Your task to perform on an android device: Set an alarm for 6am Image 0: 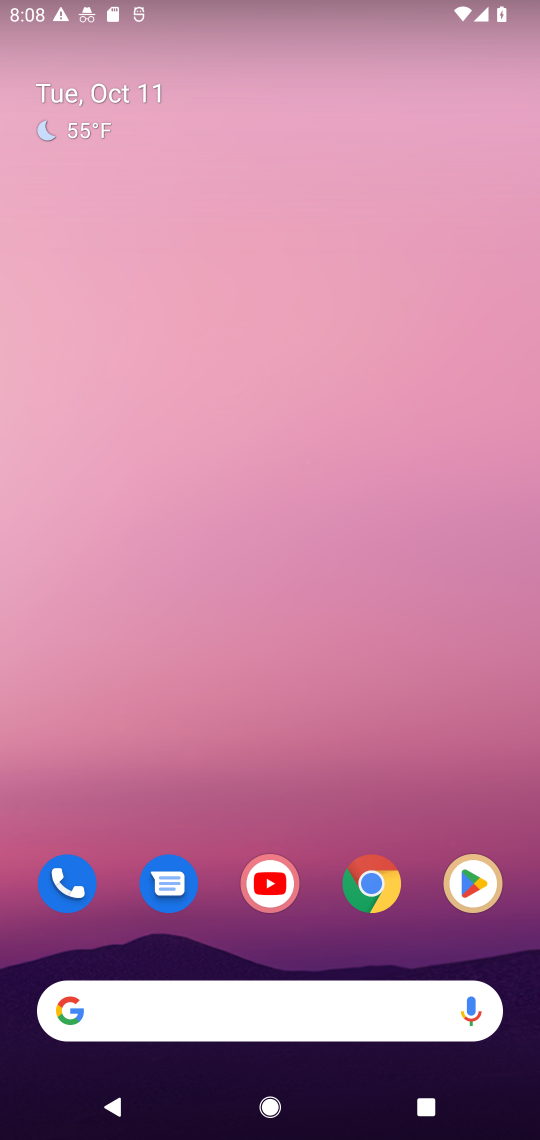
Step 0: drag from (316, 945) to (276, 84)
Your task to perform on an android device: Set an alarm for 6am Image 1: 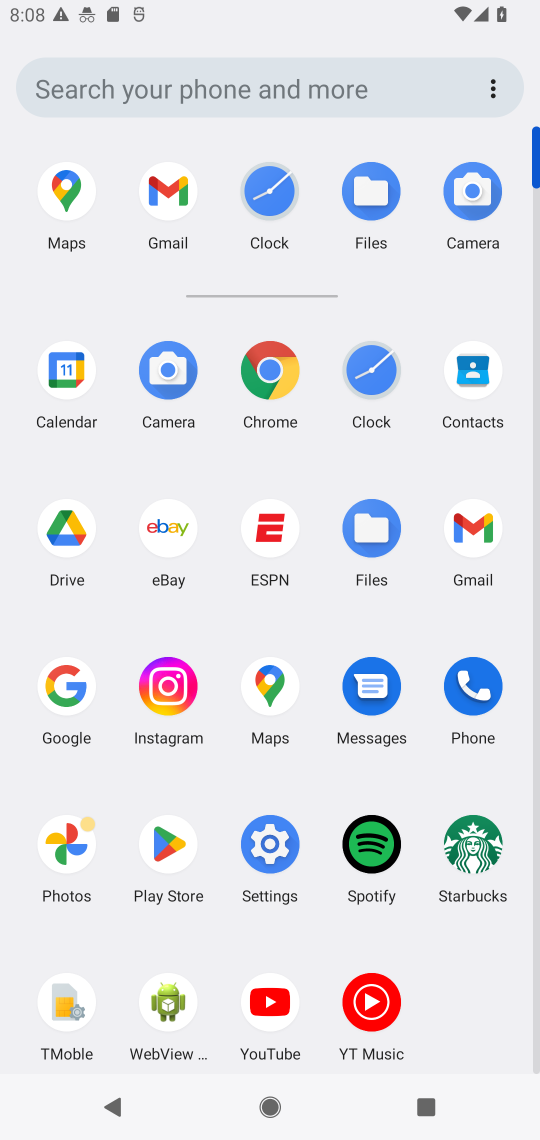
Step 1: click (375, 379)
Your task to perform on an android device: Set an alarm for 6am Image 2: 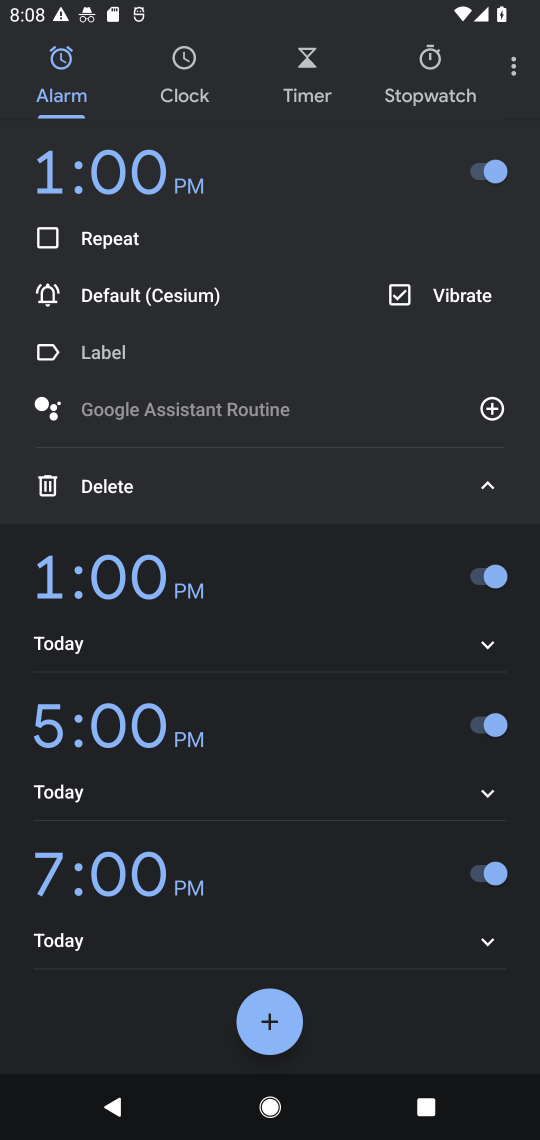
Step 2: click (278, 1015)
Your task to perform on an android device: Set an alarm for 6am Image 3: 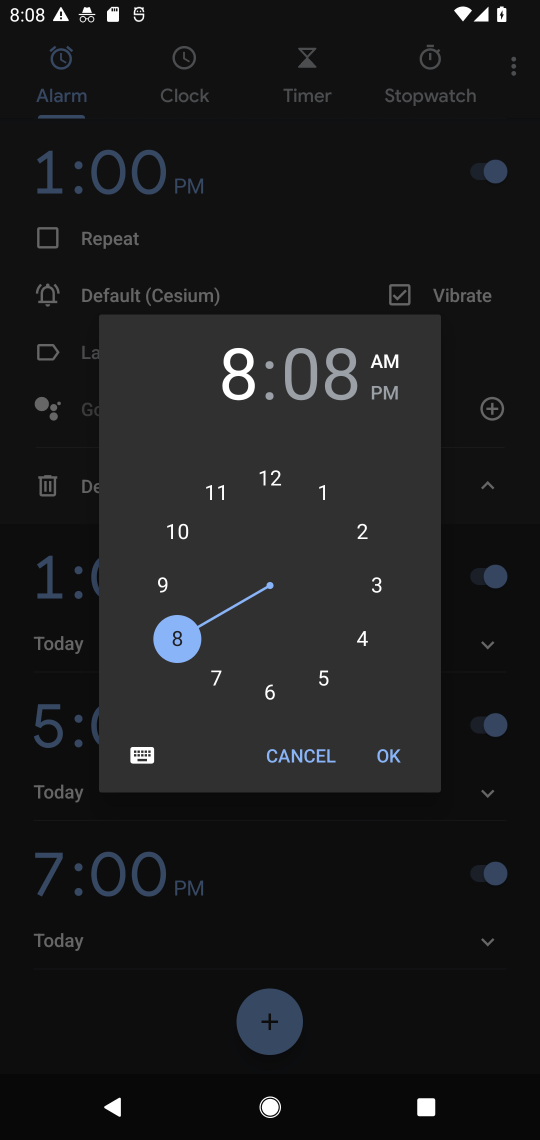
Step 3: click (271, 693)
Your task to perform on an android device: Set an alarm for 6am Image 4: 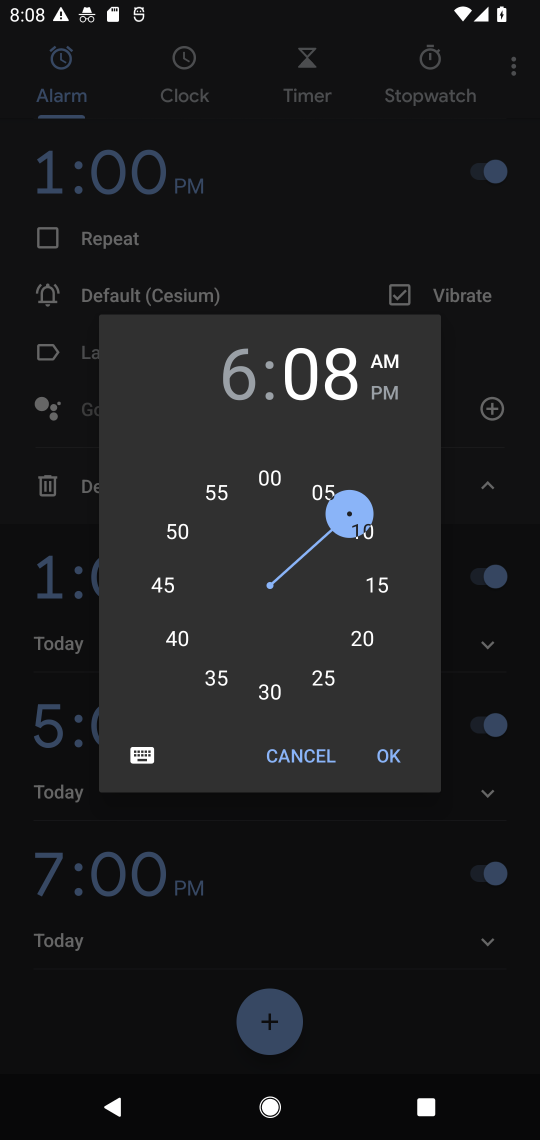
Step 4: click (327, 382)
Your task to perform on an android device: Set an alarm for 6am Image 5: 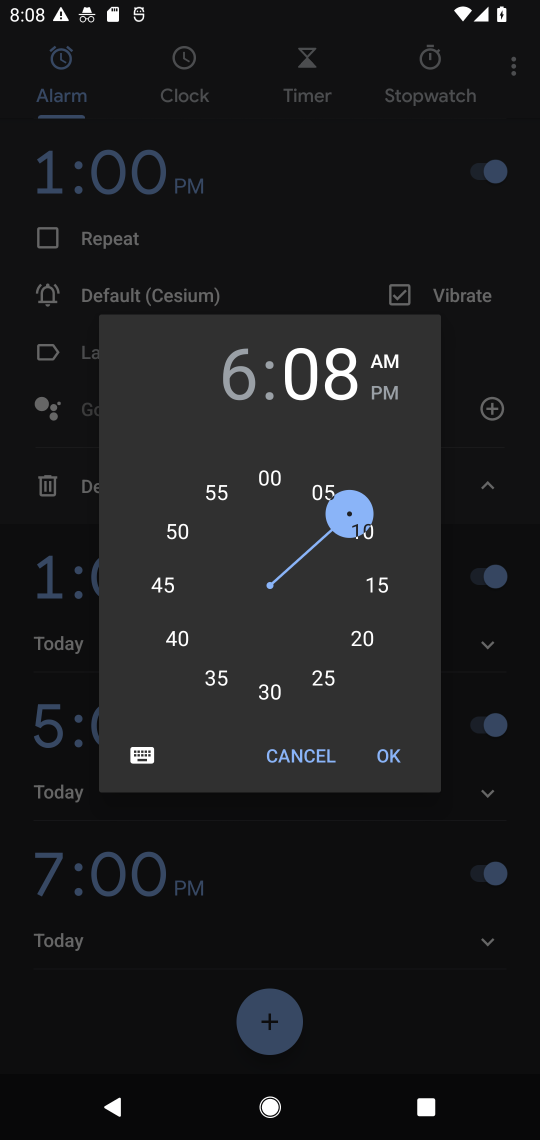
Step 5: click (264, 490)
Your task to perform on an android device: Set an alarm for 6am Image 6: 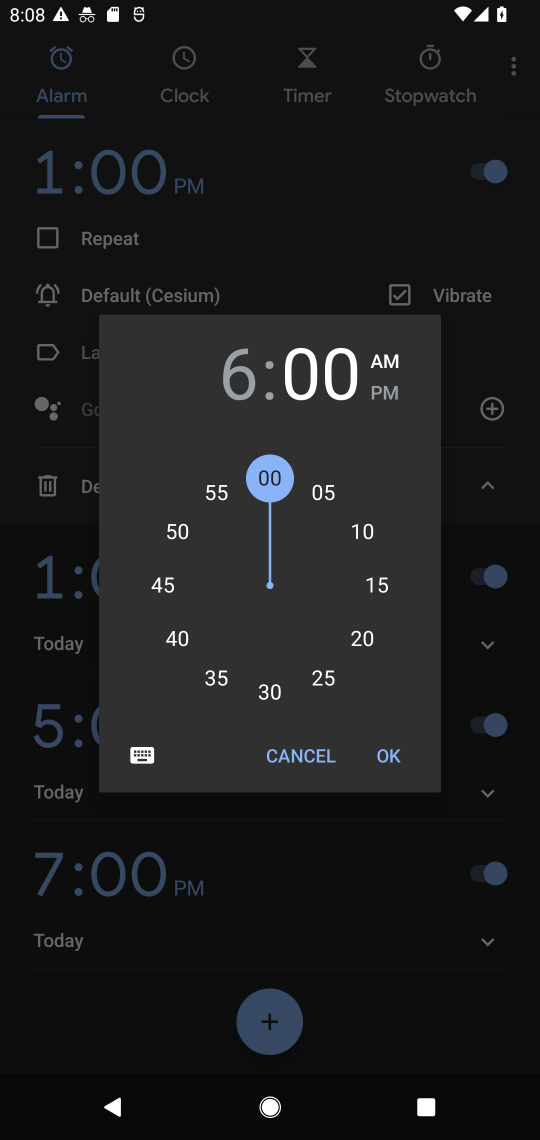
Step 6: click (396, 403)
Your task to perform on an android device: Set an alarm for 6am Image 7: 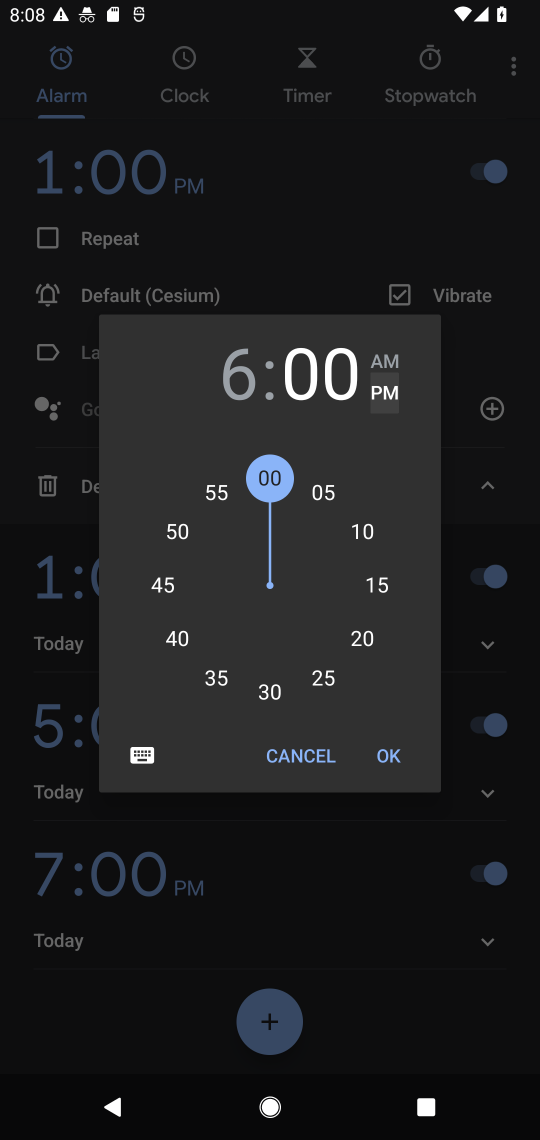
Step 7: click (398, 375)
Your task to perform on an android device: Set an alarm for 6am Image 8: 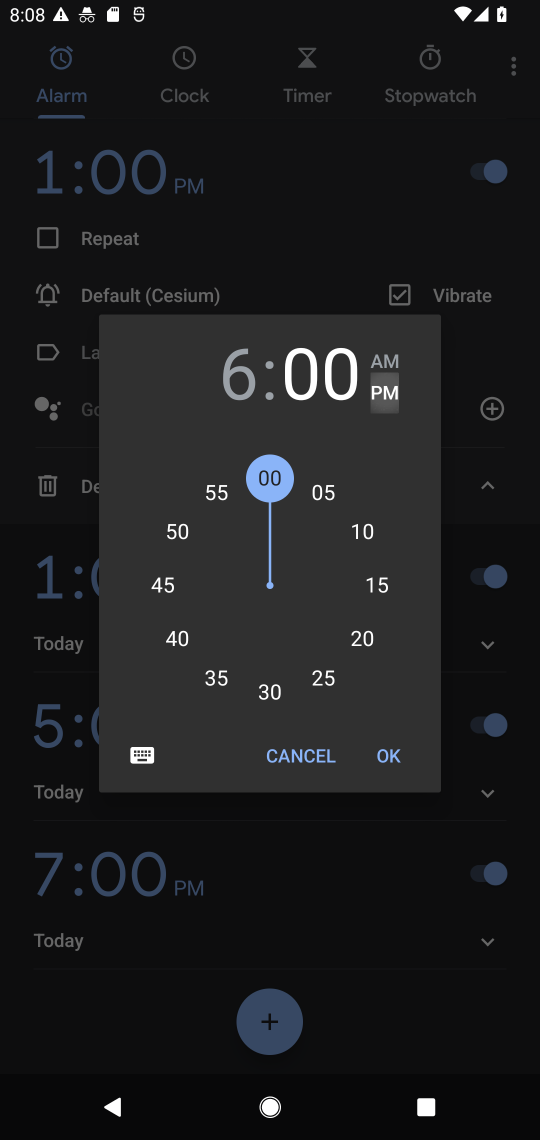
Step 8: click (398, 375)
Your task to perform on an android device: Set an alarm for 6am Image 9: 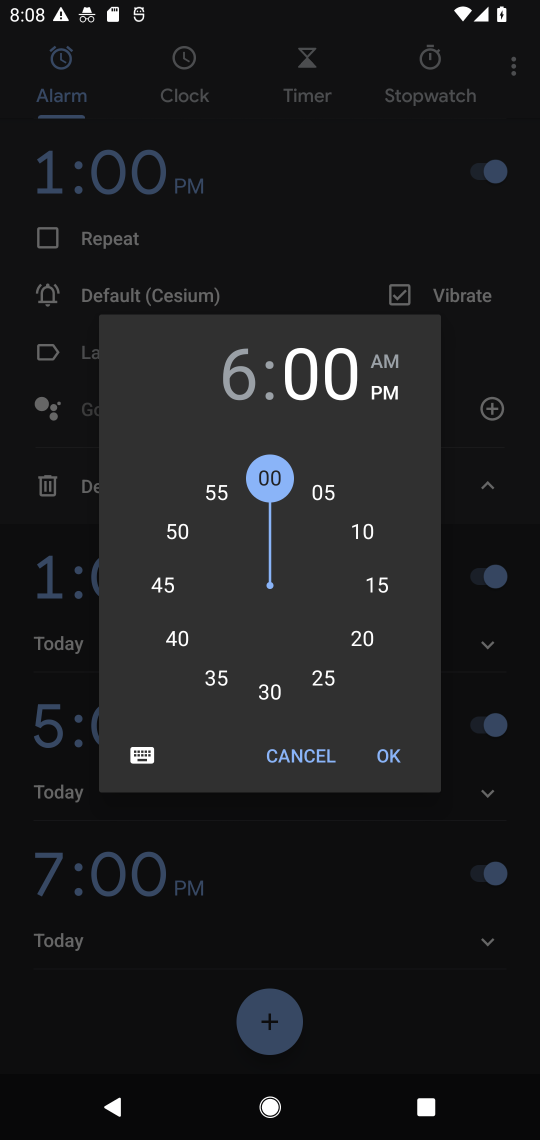
Step 9: click (403, 348)
Your task to perform on an android device: Set an alarm for 6am Image 10: 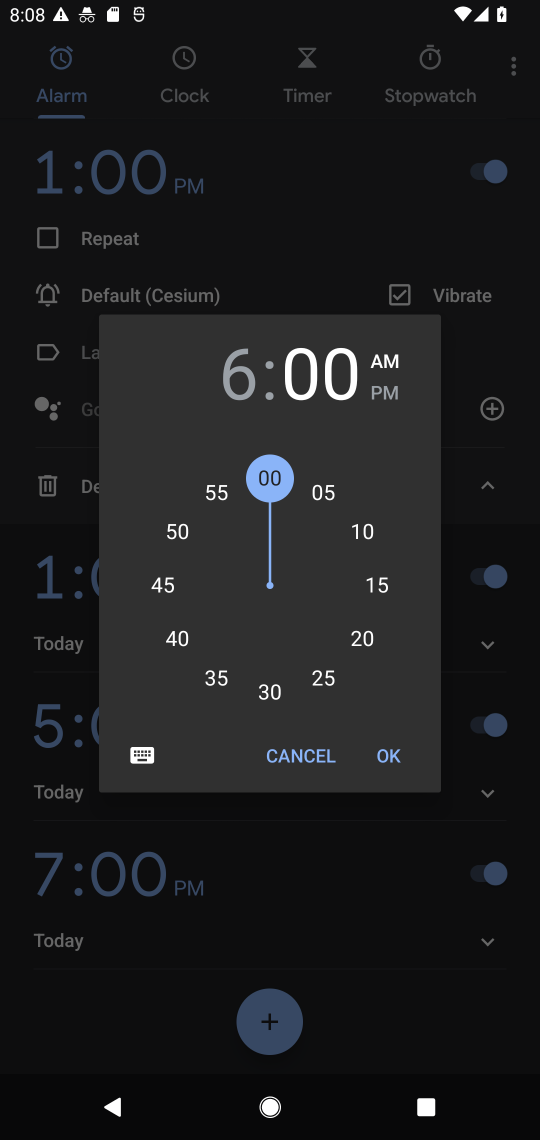
Step 10: click (373, 752)
Your task to perform on an android device: Set an alarm for 6am Image 11: 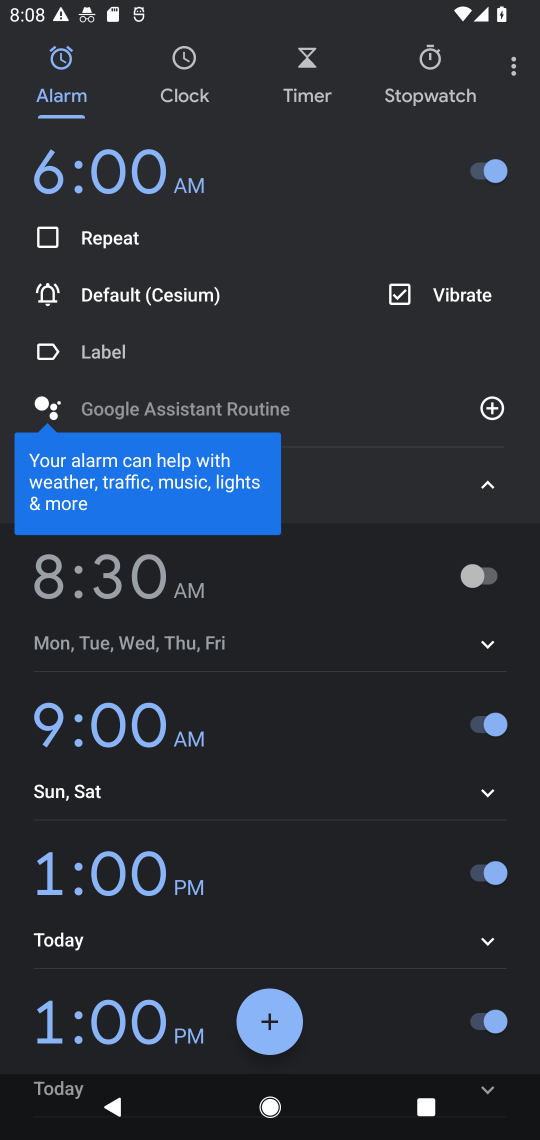
Step 11: task complete